Your task to perform on an android device: turn off notifications settings in the gmail app Image 0: 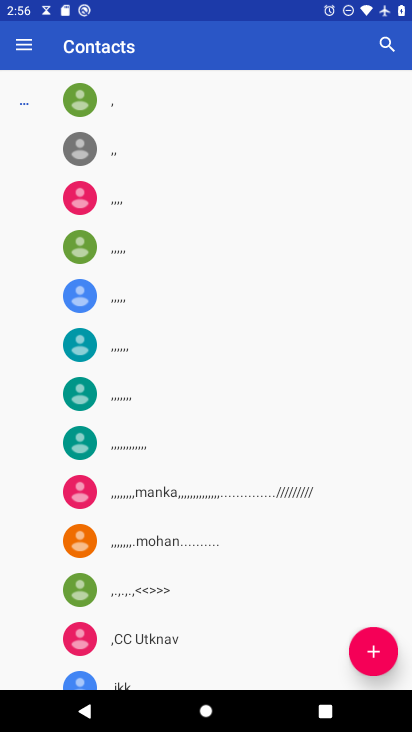
Step 0: press home button
Your task to perform on an android device: turn off notifications settings in the gmail app Image 1: 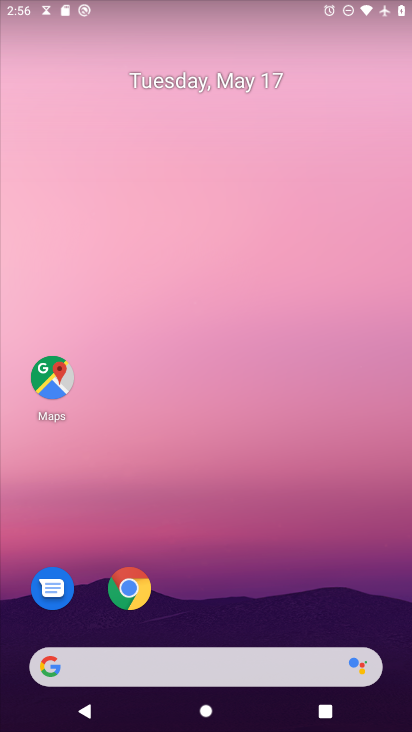
Step 1: drag from (172, 605) to (102, 90)
Your task to perform on an android device: turn off notifications settings in the gmail app Image 2: 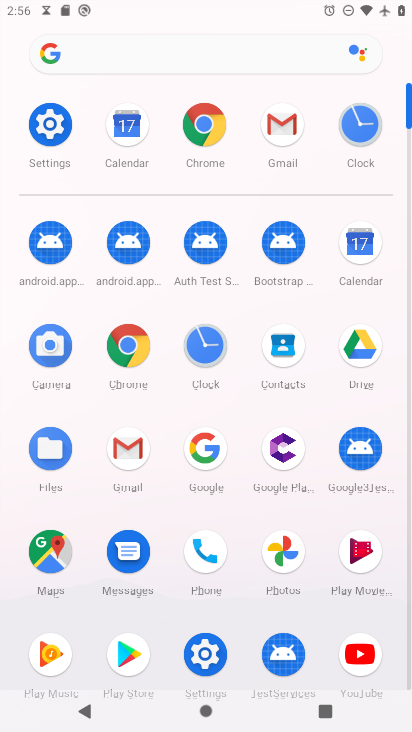
Step 2: click (268, 121)
Your task to perform on an android device: turn off notifications settings in the gmail app Image 3: 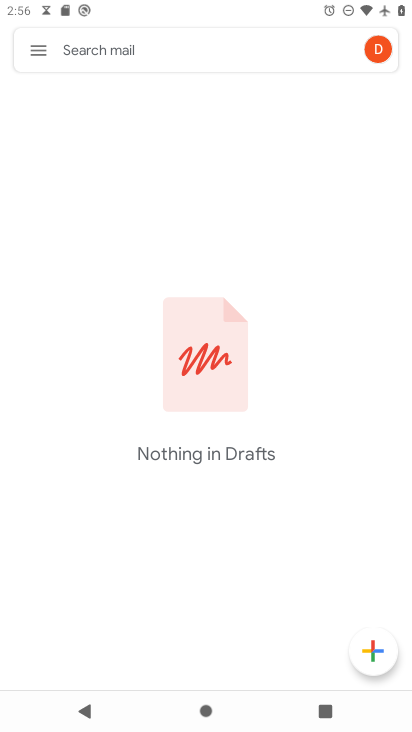
Step 3: click (43, 56)
Your task to perform on an android device: turn off notifications settings in the gmail app Image 4: 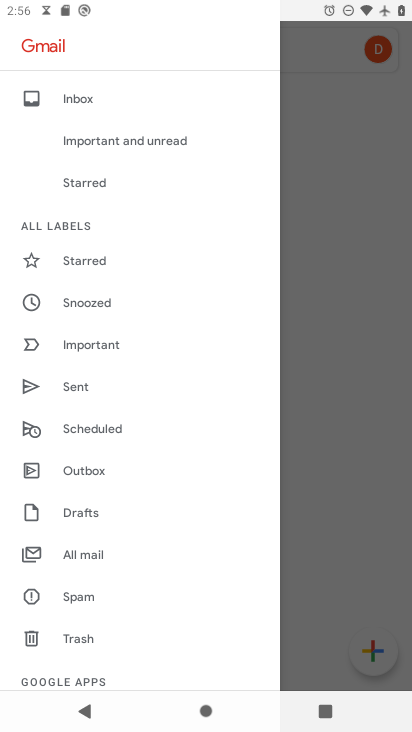
Step 4: drag from (128, 614) to (146, 312)
Your task to perform on an android device: turn off notifications settings in the gmail app Image 5: 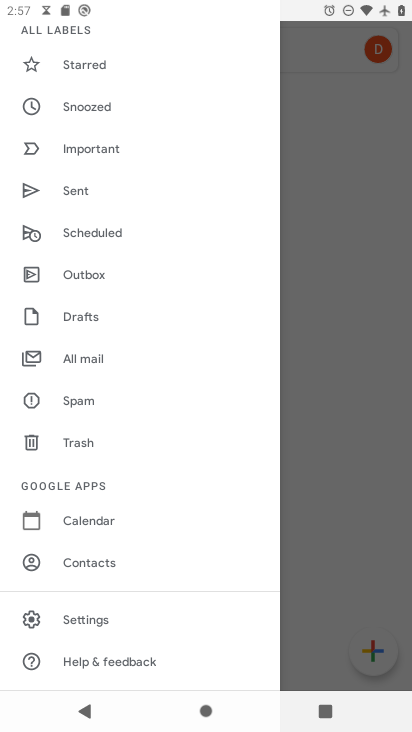
Step 5: click (90, 622)
Your task to perform on an android device: turn off notifications settings in the gmail app Image 6: 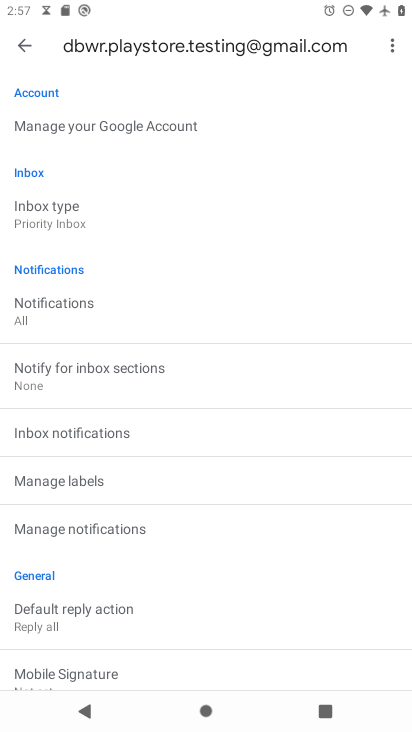
Step 6: click (68, 525)
Your task to perform on an android device: turn off notifications settings in the gmail app Image 7: 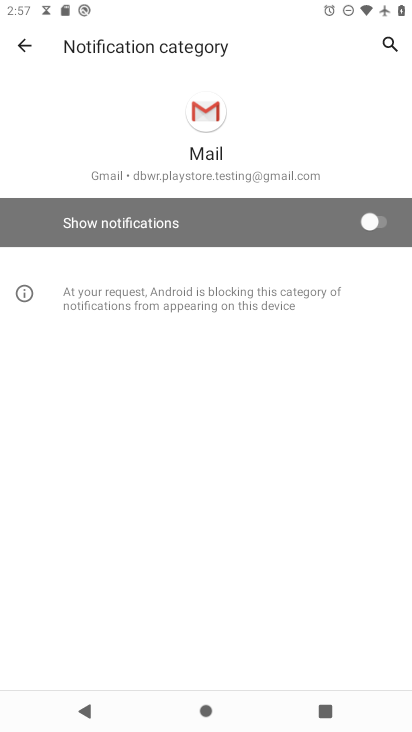
Step 7: task complete